Your task to perform on an android device: Open Yahoo.com Image 0: 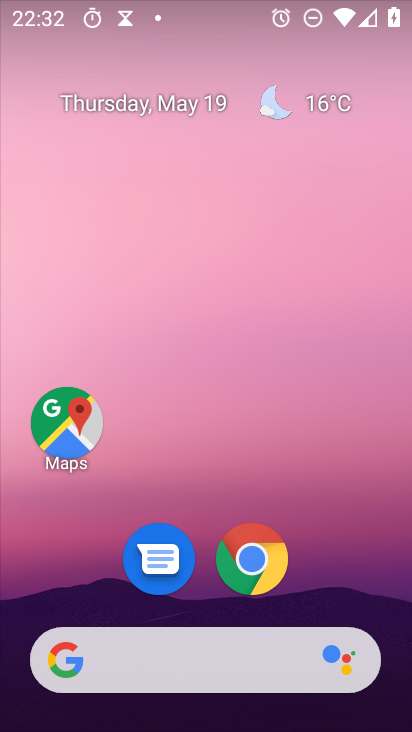
Step 0: click (253, 563)
Your task to perform on an android device: Open Yahoo.com Image 1: 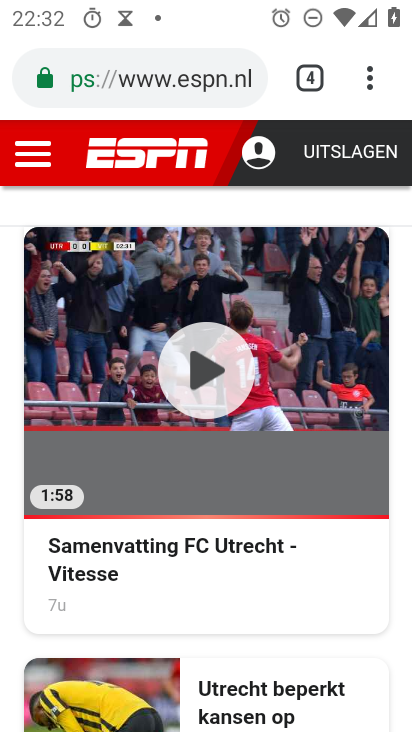
Step 1: click (371, 86)
Your task to perform on an android device: Open Yahoo.com Image 2: 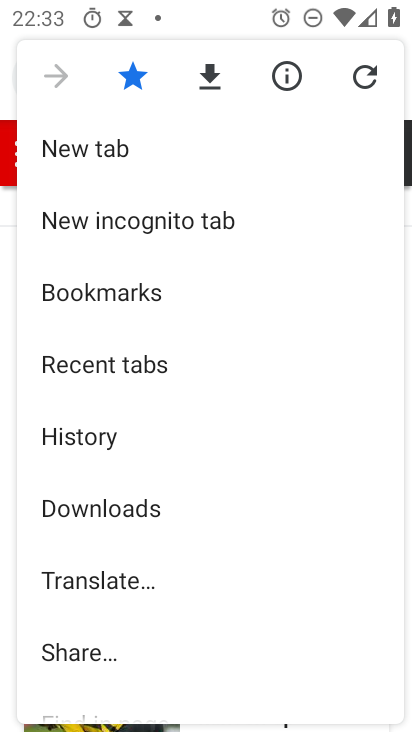
Step 2: click (98, 152)
Your task to perform on an android device: Open Yahoo.com Image 3: 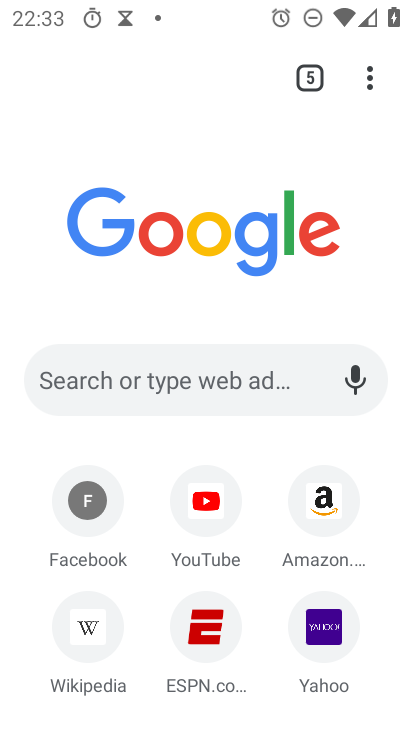
Step 3: click (320, 627)
Your task to perform on an android device: Open Yahoo.com Image 4: 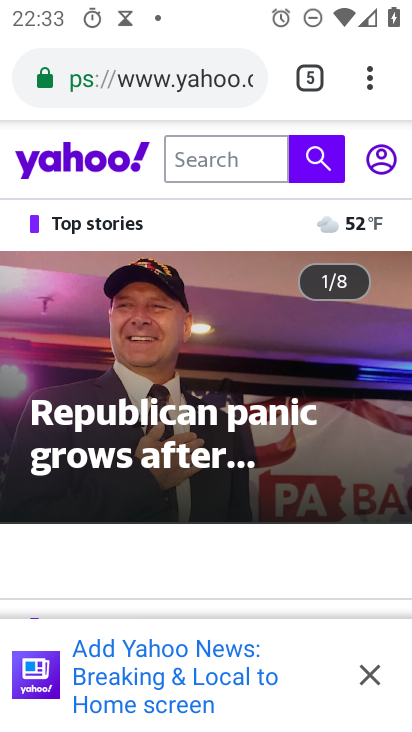
Step 4: task complete